Your task to perform on an android device: Show me recent news Image 0: 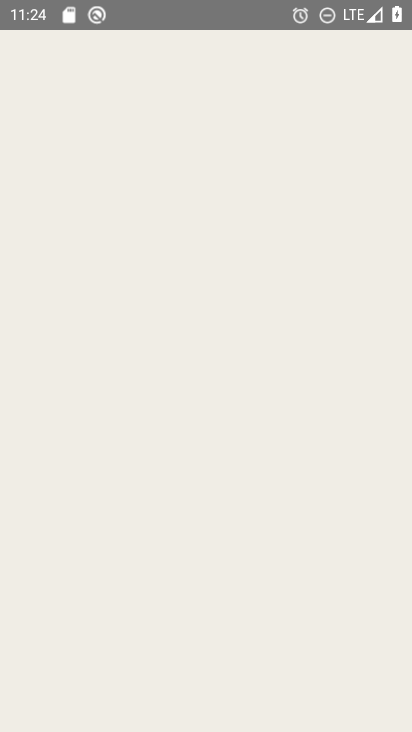
Step 0: press home button
Your task to perform on an android device: Show me recent news Image 1: 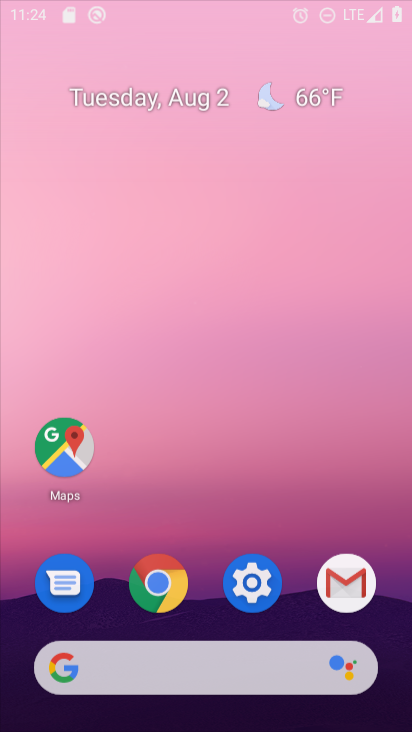
Step 1: press home button
Your task to perform on an android device: Show me recent news Image 2: 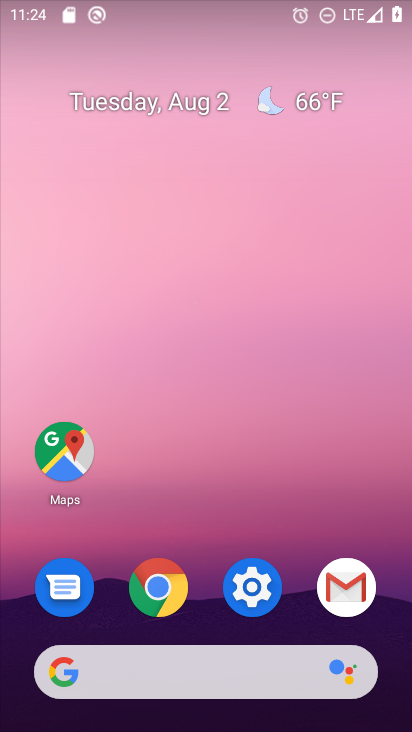
Step 2: click (221, 603)
Your task to perform on an android device: Show me recent news Image 3: 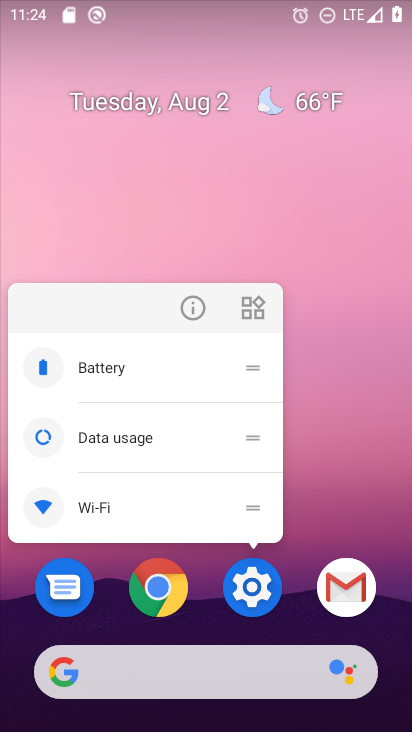
Step 3: click (261, 601)
Your task to perform on an android device: Show me recent news Image 4: 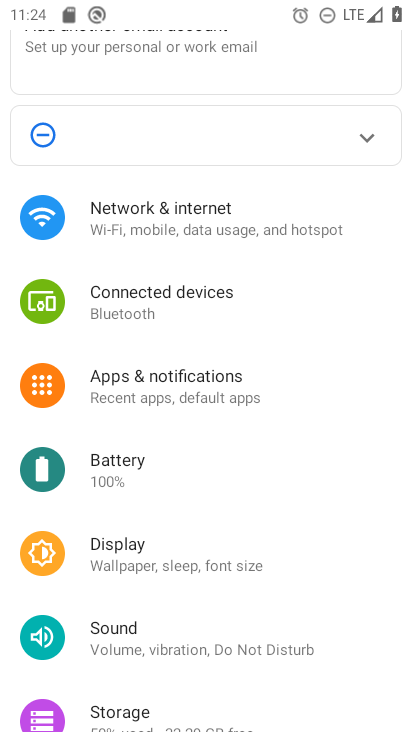
Step 4: press home button
Your task to perform on an android device: Show me recent news Image 5: 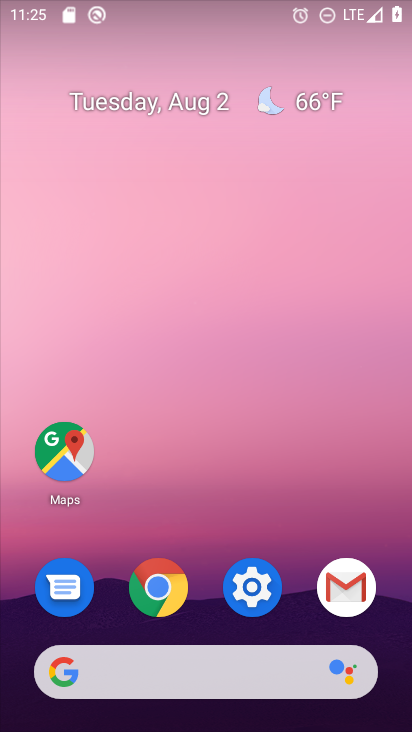
Step 5: click (171, 677)
Your task to perform on an android device: Show me recent news Image 6: 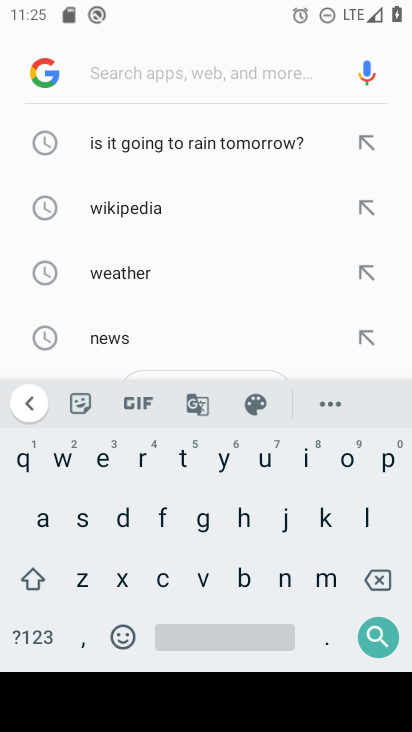
Step 6: click (134, 460)
Your task to perform on an android device: Show me recent news Image 7: 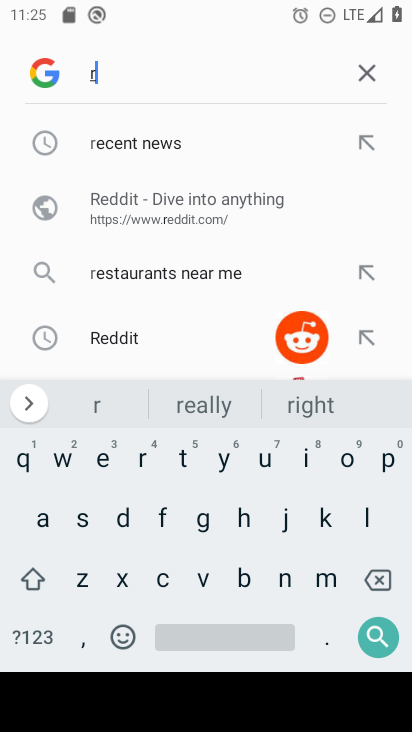
Step 7: click (127, 141)
Your task to perform on an android device: Show me recent news Image 8: 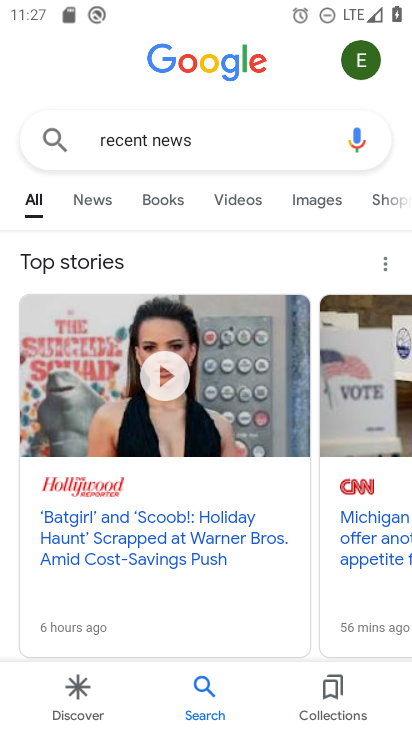
Step 8: press home button
Your task to perform on an android device: Show me recent news Image 9: 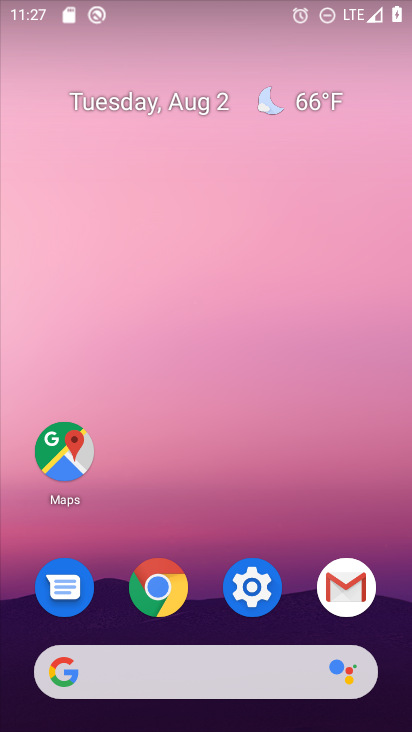
Step 9: click (201, 669)
Your task to perform on an android device: Show me recent news Image 10: 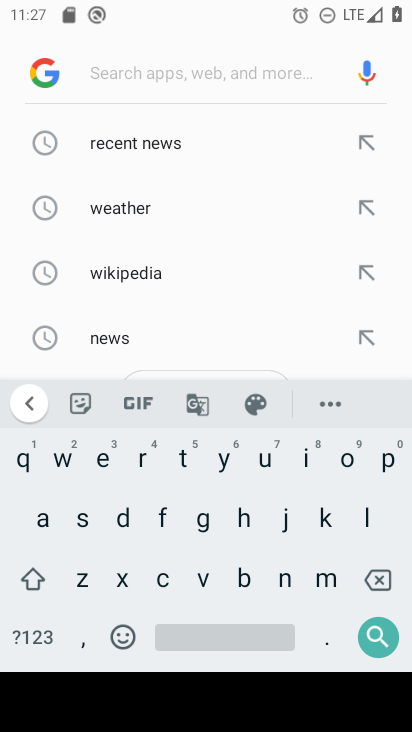
Step 10: click (166, 148)
Your task to perform on an android device: Show me recent news Image 11: 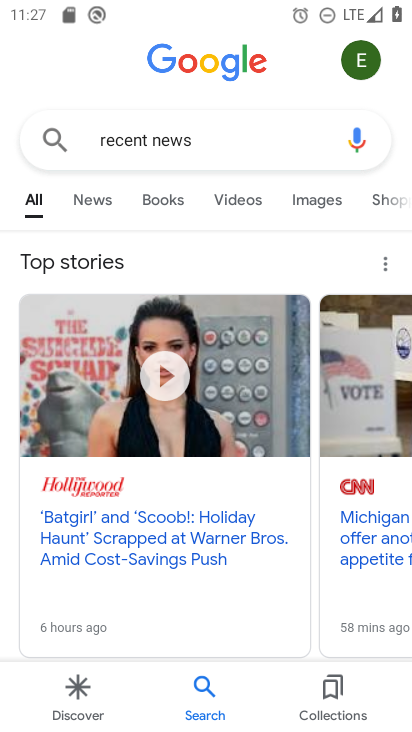
Step 11: task complete